Your task to perform on an android device: Go to calendar. Show me events next week Image 0: 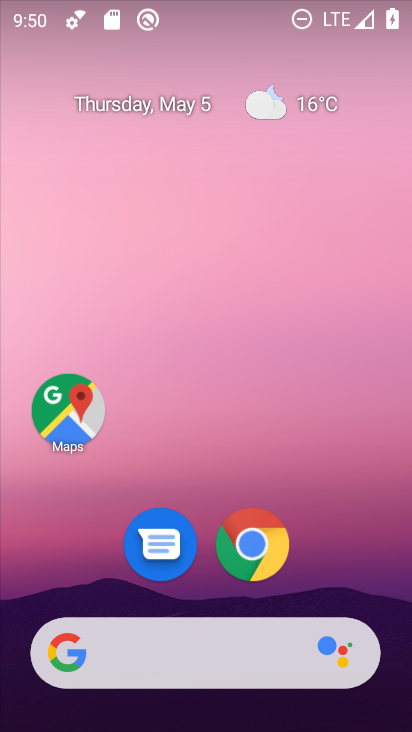
Step 0: drag from (389, 671) to (274, 116)
Your task to perform on an android device: Go to calendar. Show me events next week Image 1: 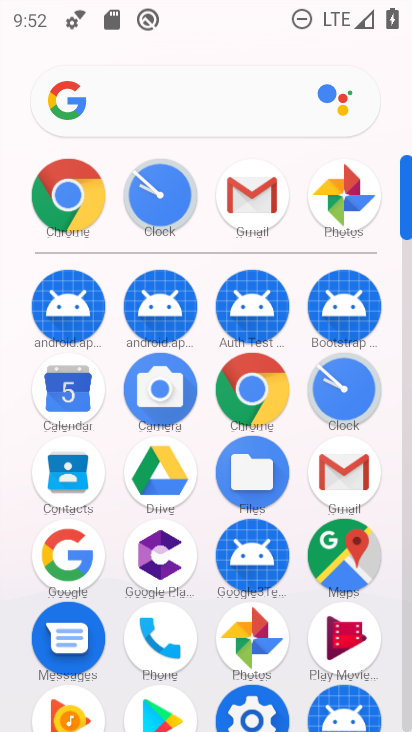
Step 1: click (55, 401)
Your task to perform on an android device: Go to calendar. Show me events next week Image 2: 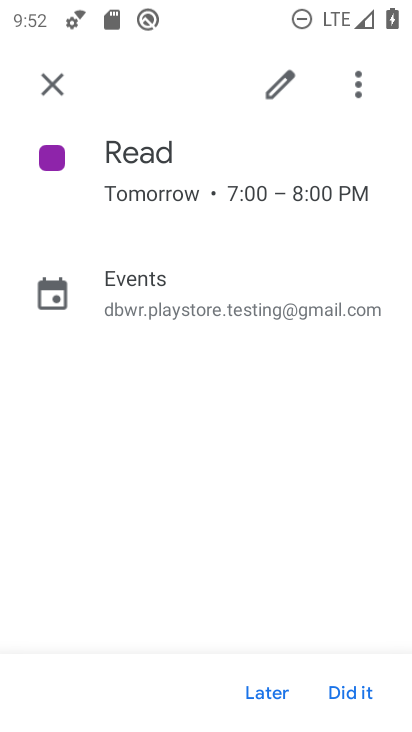
Step 2: click (53, 84)
Your task to perform on an android device: Go to calendar. Show me events next week Image 3: 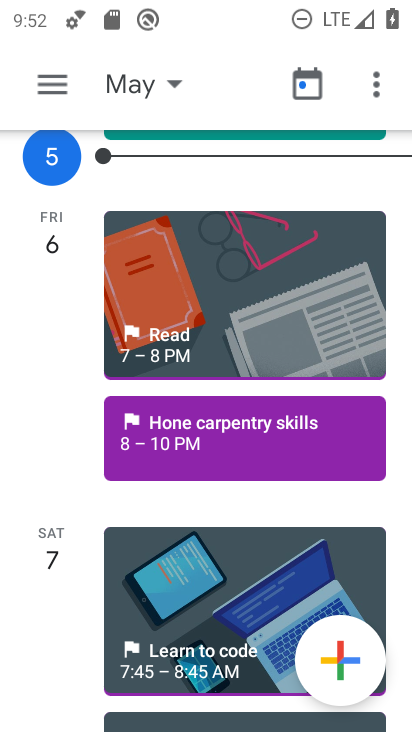
Step 3: click (53, 84)
Your task to perform on an android device: Go to calendar. Show me events next week Image 4: 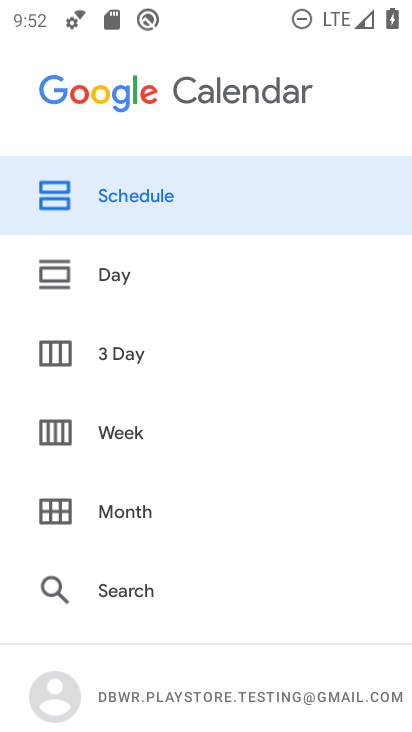
Step 4: click (131, 199)
Your task to perform on an android device: Go to calendar. Show me events next week Image 5: 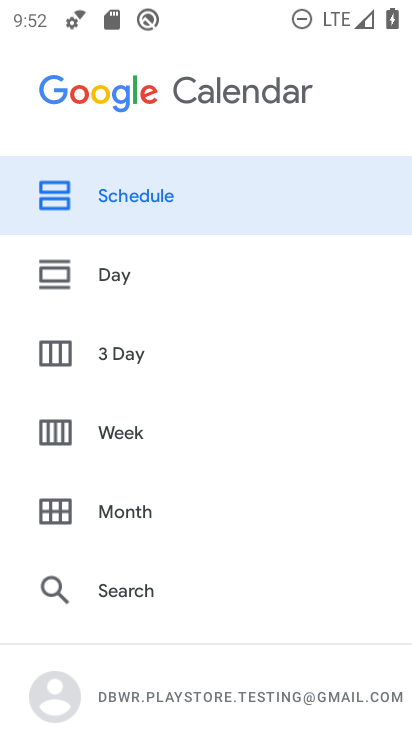
Step 5: click (131, 199)
Your task to perform on an android device: Go to calendar. Show me events next week Image 6: 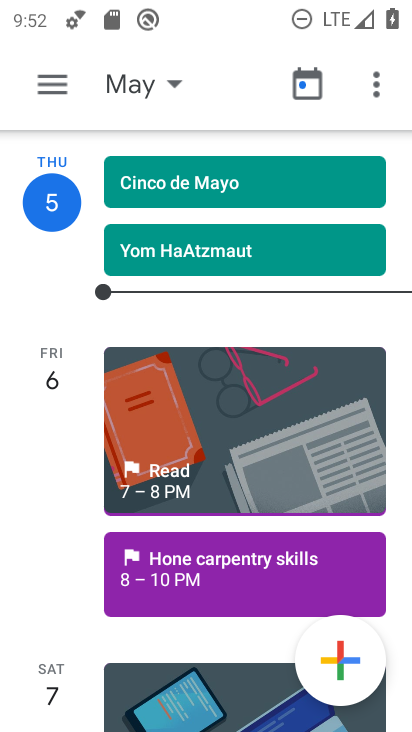
Step 6: task complete